Your task to perform on an android device: Turn off the flashlight Image 0: 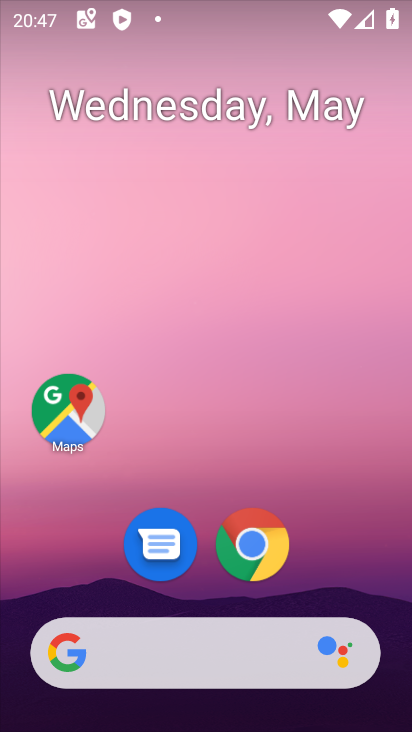
Step 0: drag from (240, 16) to (174, 624)
Your task to perform on an android device: Turn off the flashlight Image 1: 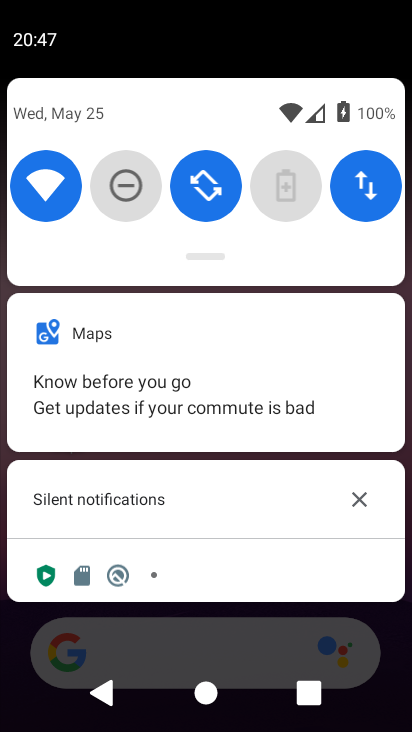
Step 1: drag from (270, 132) to (257, 564)
Your task to perform on an android device: Turn off the flashlight Image 2: 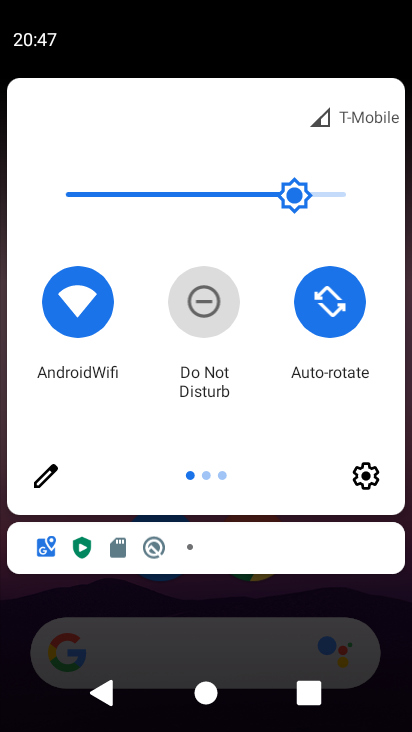
Step 2: click (379, 484)
Your task to perform on an android device: Turn off the flashlight Image 3: 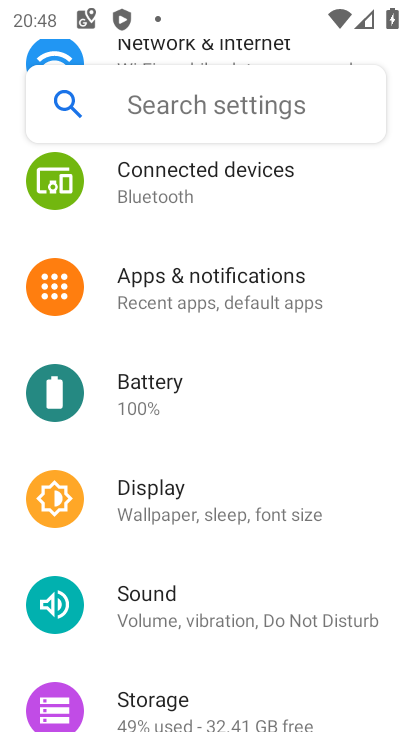
Step 3: click (379, 484)
Your task to perform on an android device: Turn off the flashlight Image 4: 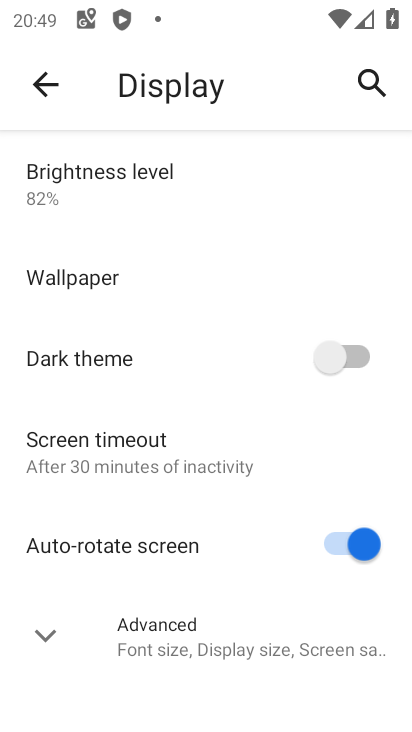
Step 4: click (379, 484)
Your task to perform on an android device: Turn off the flashlight Image 5: 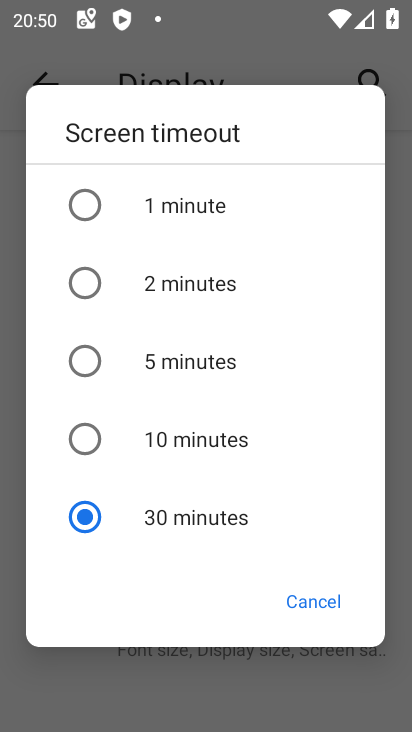
Step 5: task complete